Your task to perform on an android device: stop showing notifications on the lock screen Image 0: 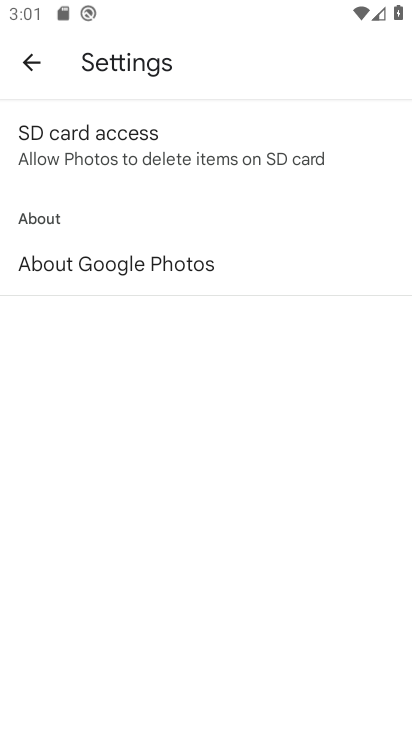
Step 0: press home button
Your task to perform on an android device: stop showing notifications on the lock screen Image 1: 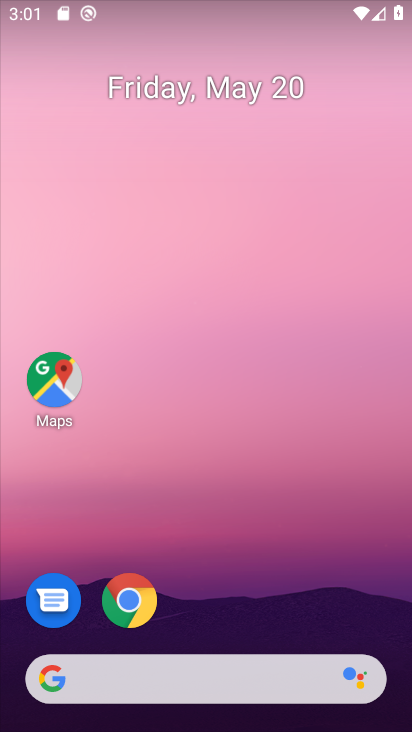
Step 1: drag from (372, 614) to (363, 135)
Your task to perform on an android device: stop showing notifications on the lock screen Image 2: 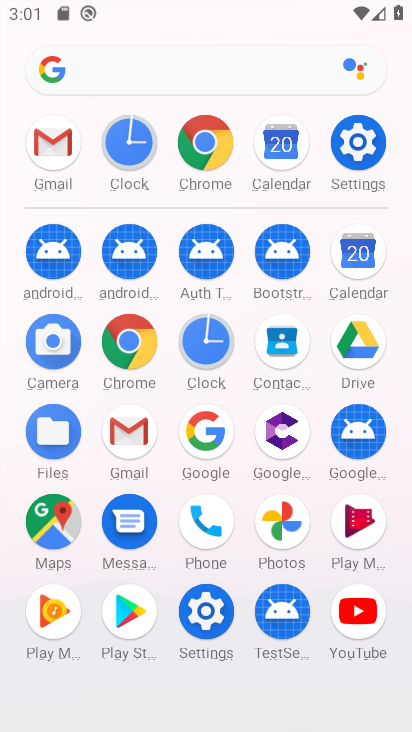
Step 2: drag from (240, 605) to (234, 422)
Your task to perform on an android device: stop showing notifications on the lock screen Image 3: 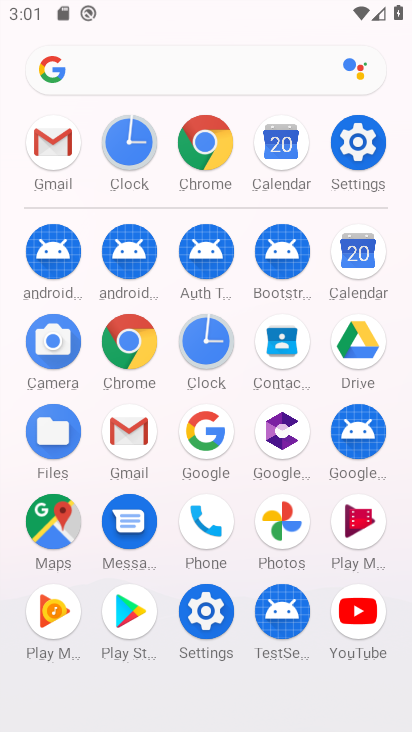
Step 3: drag from (246, 292) to (238, 428)
Your task to perform on an android device: stop showing notifications on the lock screen Image 4: 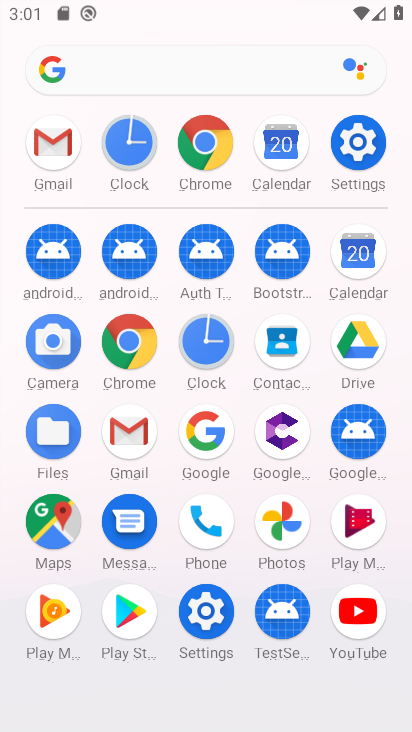
Step 4: drag from (237, 563) to (231, 396)
Your task to perform on an android device: stop showing notifications on the lock screen Image 5: 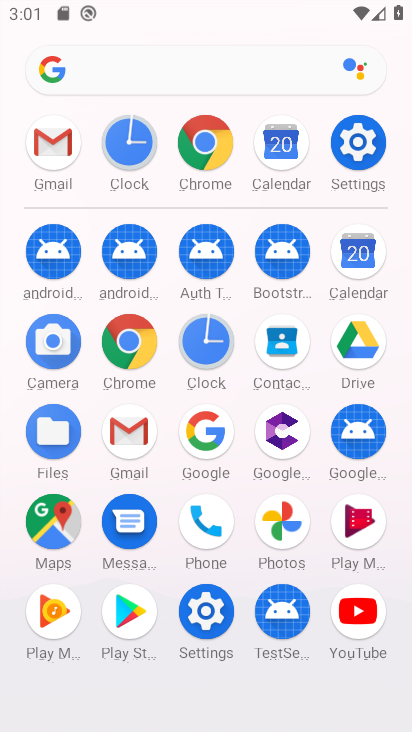
Step 5: click (206, 615)
Your task to perform on an android device: stop showing notifications on the lock screen Image 6: 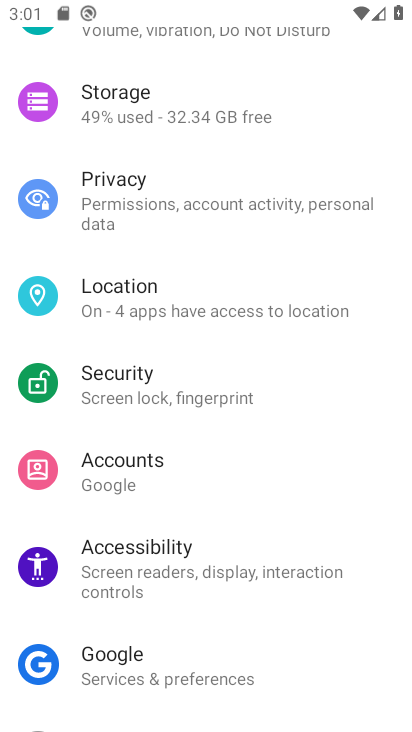
Step 6: drag from (327, 389) to (318, 569)
Your task to perform on an android device: stop showing notifications on the lock screen Image 7: 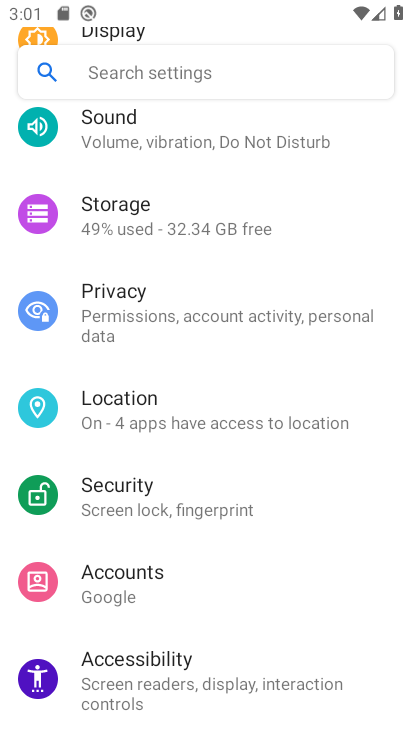
Step 7: drag from (350, 375) to (350, 529)
Your task to perform on an android device: stop showing notifications on the lock screen Image 8: 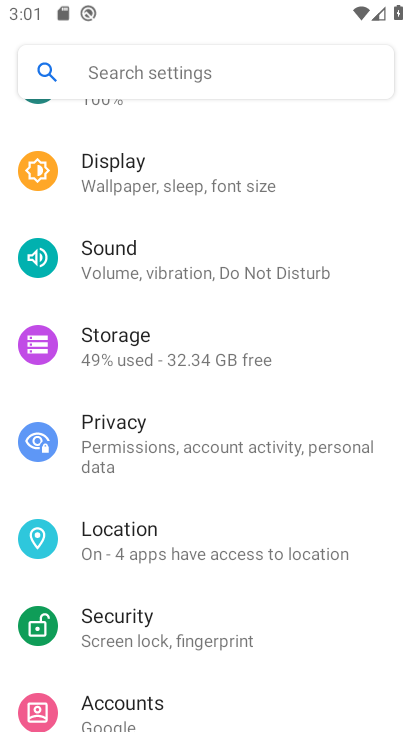
Step 8: drag from (366, 329) to (356, 495)
Your task to perform on an android device: stop showing notifications on the lock screen Image 9: 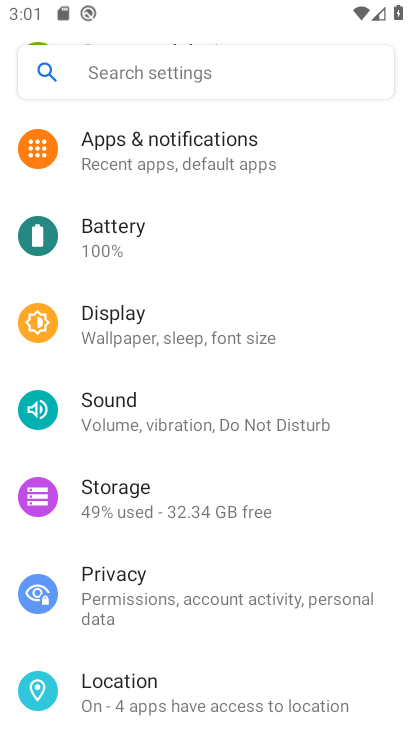
Step 9: drag from (358, 303) to (358, 459)
Your task to perform on an android device: stop showing notifications on the lock screen Image 10: 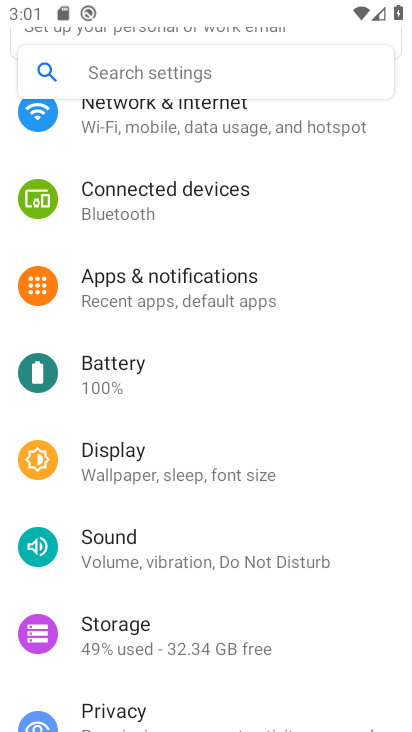
Step 10: drag from (347, 301) to (337, 417)
Your task to perform on an android device: stop showing notifications on the lock screen Image 11: 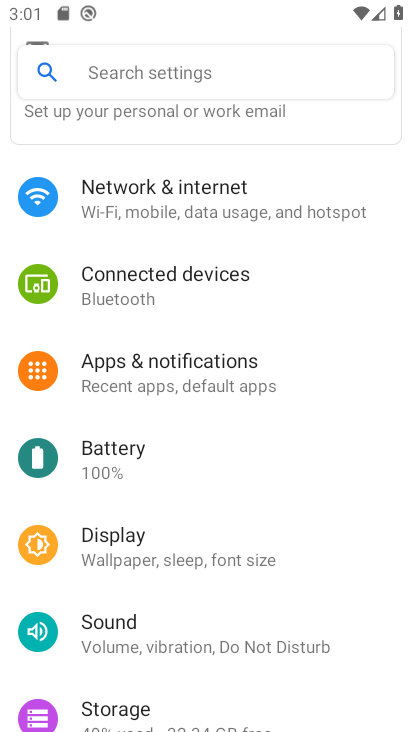
Step 11: drag from (339, 290) to (340, 381)
Your task to perform on an android device: stop showing notifications on the lock screen Image 12: 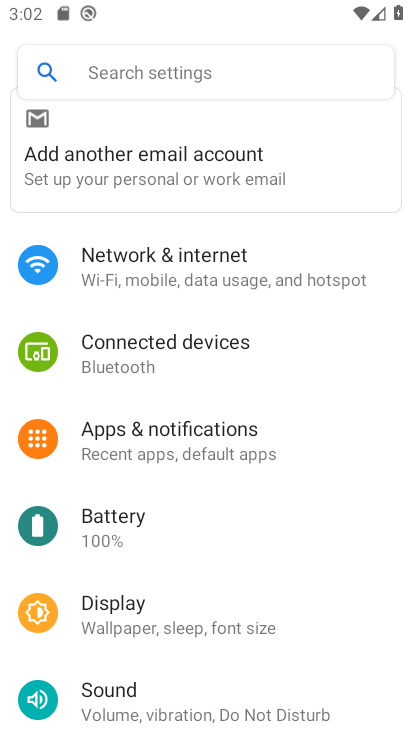
Step 12: drag from (358, 583) to (345, 432)
Your task to perform on an android device: stop showing notifications on the lock screen Image 13: 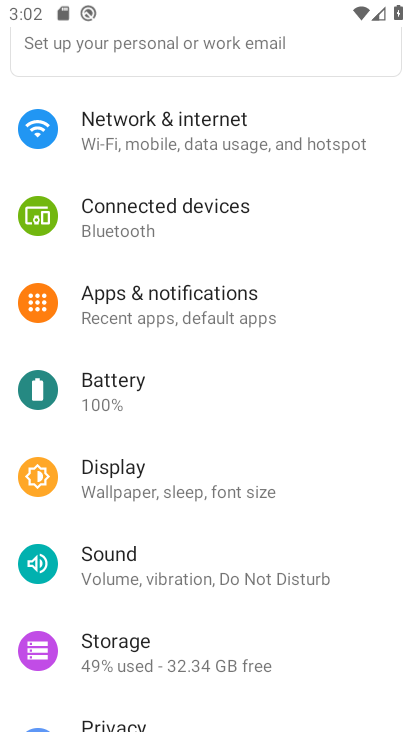
Step 13: drag from (354, 642) to (357, 486)
Your task to perform on an android device: stop showing notifications on the lock screen Image 14: 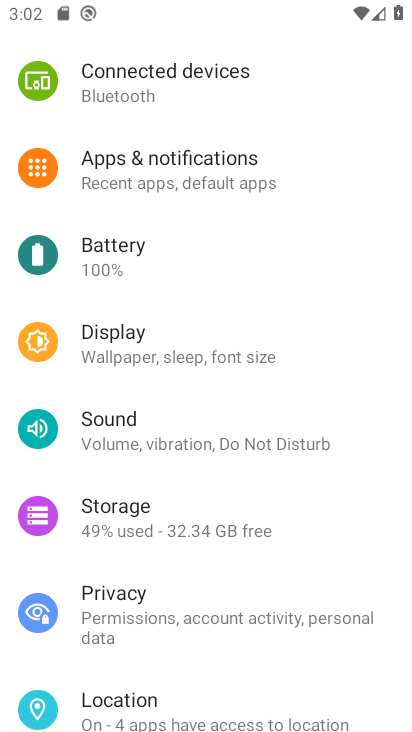
Step 14: drag from (354, 335) to (346, 508)
Your task to perform on an android device: stop showing notifications on the lock screen Image 15: 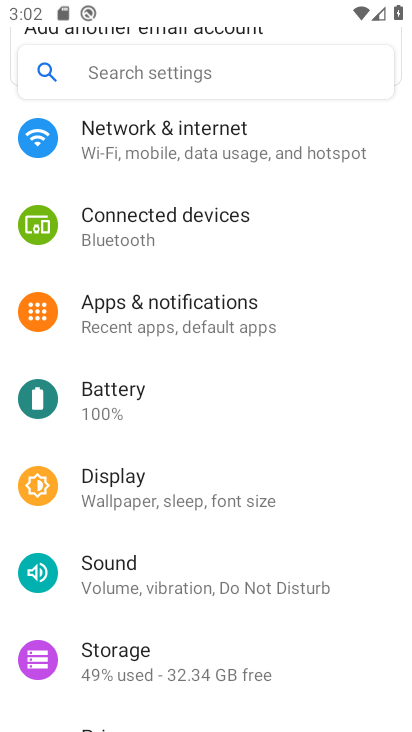
Step 15: drag from (349, 302) to (338, 488)
Your task to perform on an android device: stop showing notifications on the lock screen Image 16: 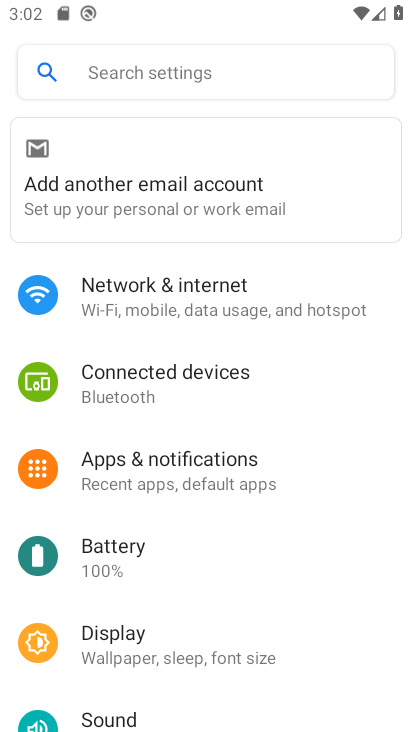
Step 16: drag from (338, 253) to (335, 442)
Your task to perform on an android device: stop showing notifications on the lock screen Image 17: 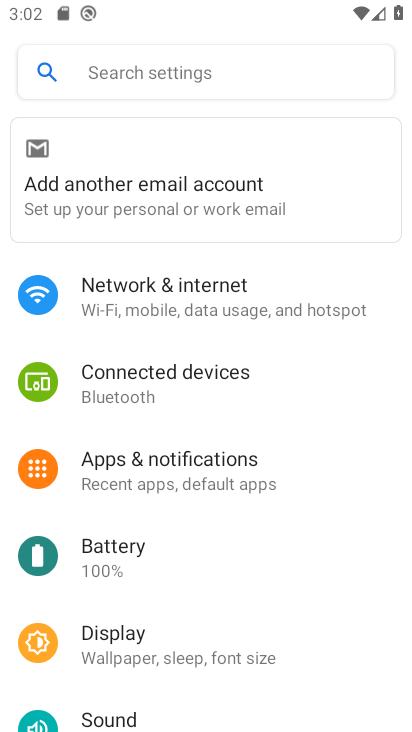
Step 17: click (181, 465)
Your task to perform on an android device: stop showing notifications on the lock screen Image 18: 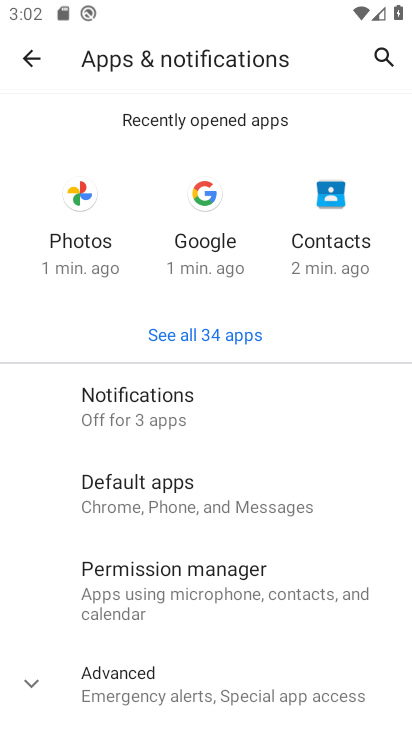
Step 18: click (157, 398)
Your task to perform on an android device: stop showing notifications on the lock screen Image 19: 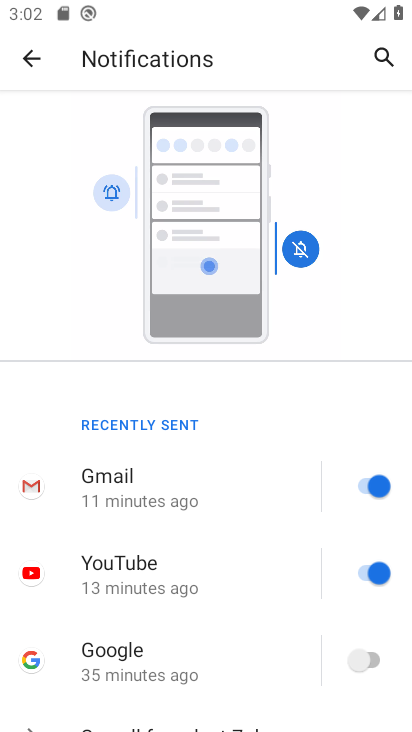
Step 19: drag from (254, 603) to (251, 469)
Your task to perform on an android device: stop showing notifications on the lock screen Image 20: 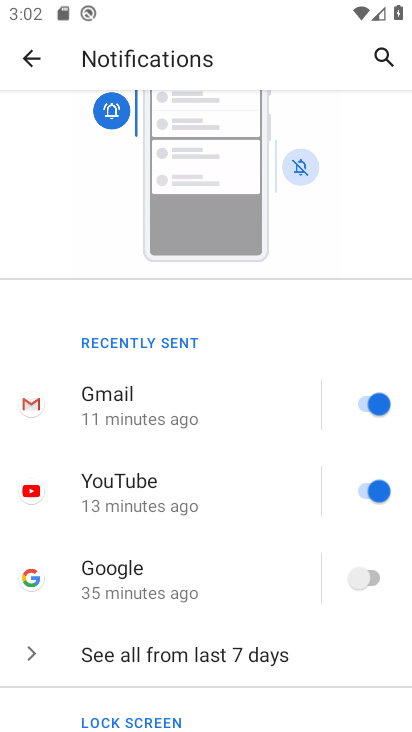
Step 20: drag from (269, 636) to (269, 496)
Your task to perform on an android device: stop showing notifications on the lock screen Image 21: 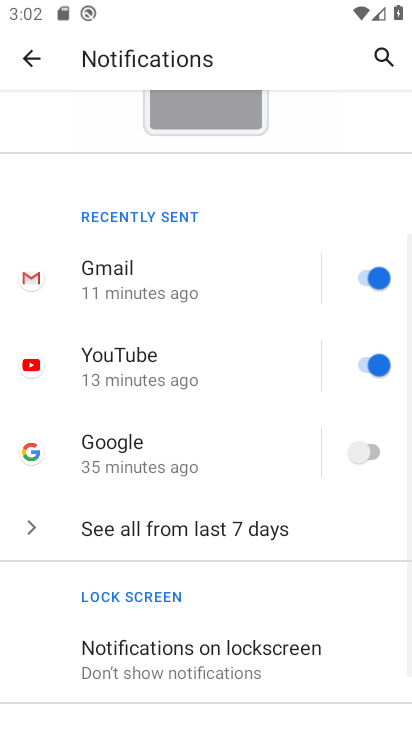
Step 21: drag from (265, 643) to (266, 490)
Your task to perform on an android device: stop showing notifications on the lock screen Image 22: 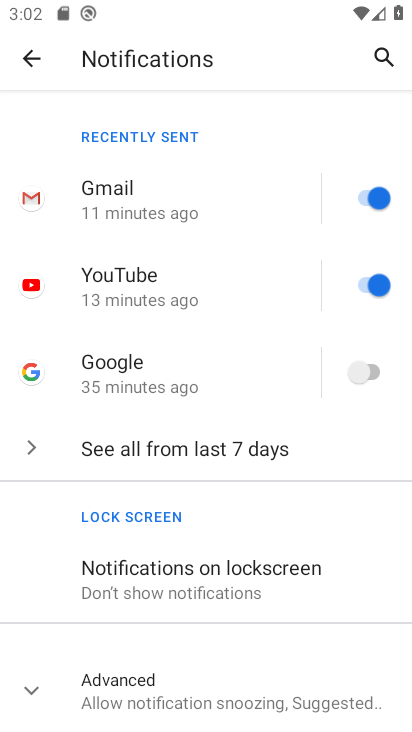
Step 22: drag from (282, 655) to (288, 490)
Your task to perform on an android device: stop showing notifications on the lock screen Image 23: 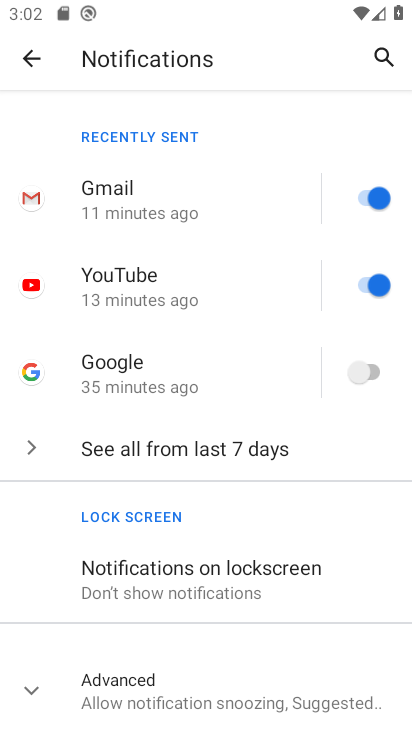
Step 23: click (227, 584)
Your task to perform on an android device: stop showing notifications on the lock screen Image 24: 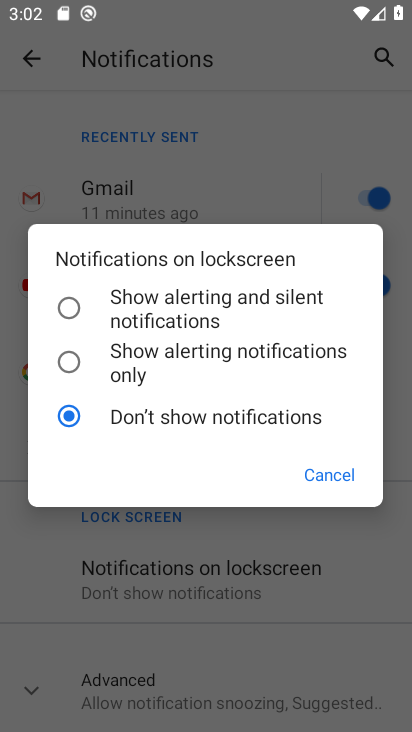
Step 24: task complete